Your task to perform on an android device: Go to sound settings Image 0: 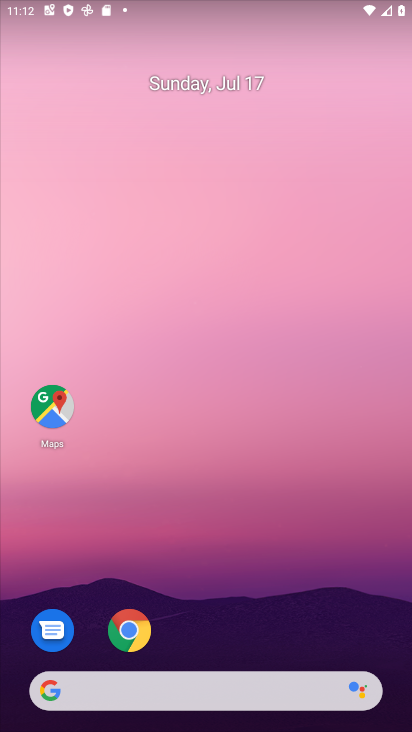
Step 0: drag from (199, 653) to (196, 135)
Your task to perform on an android device: Go to sound settings Image 1: 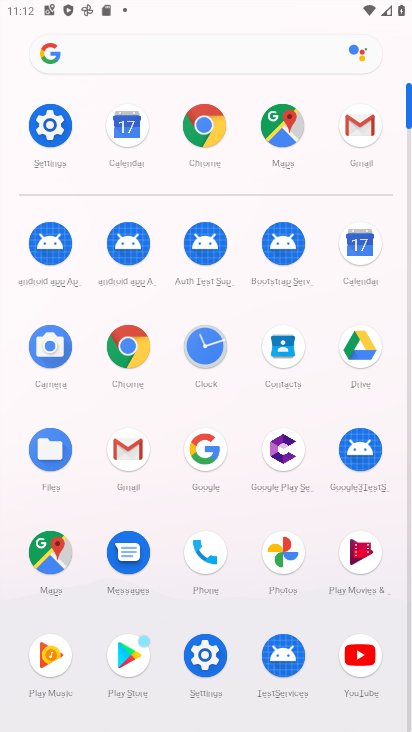
Step 1: click (206, 660)
Your task to perform on an android device: Go to sound settings Image 2: 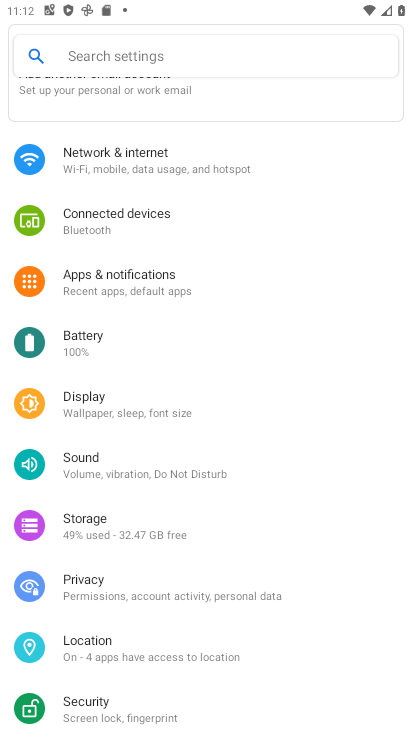
Step 2: click (122, 483)
Your task to perform on an android device: Go to sound settings Image 3: 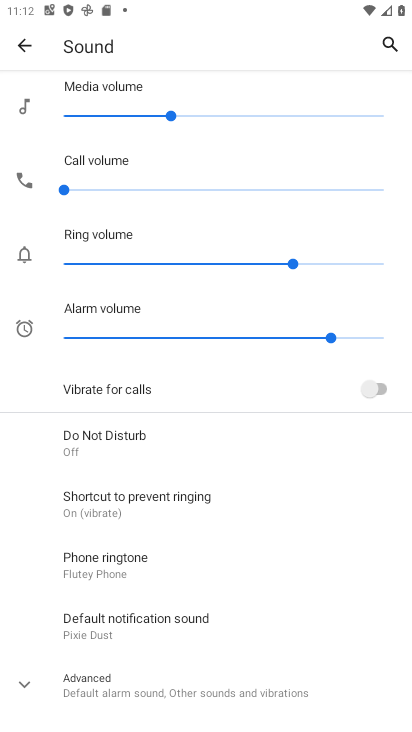
Step 3: task complete